Your task to perform on an android device: change your default location settings in chrome Image 0: 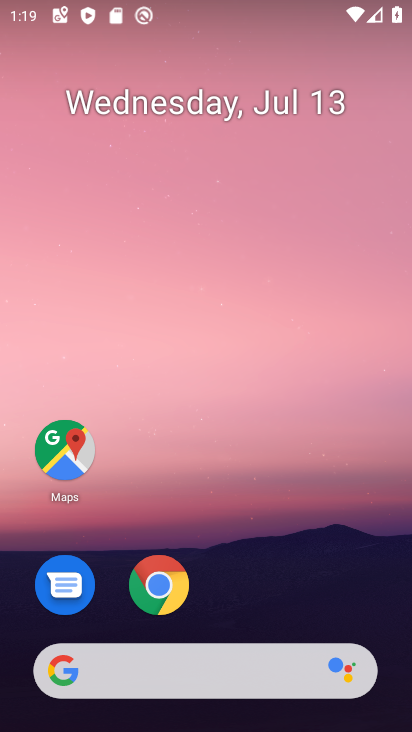
Step 0: click (153, 590)
Your task to perform on an android device: change your default location settings in chrome Image 1: 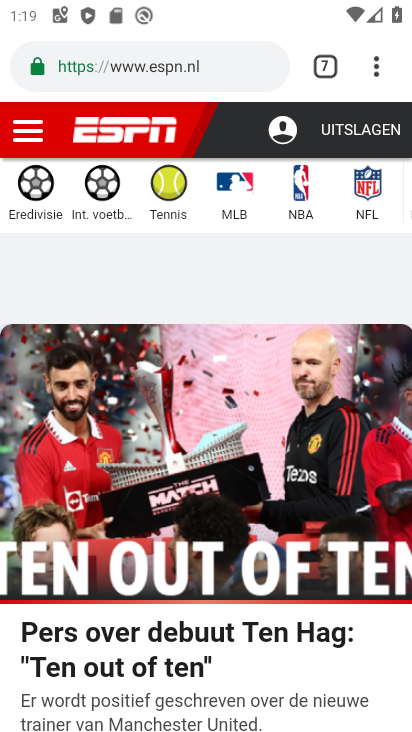
Step 1: drag from (372, 63) to (170, 592)
Your task to perform on an android device: change your default location settings in chrome Image 2: 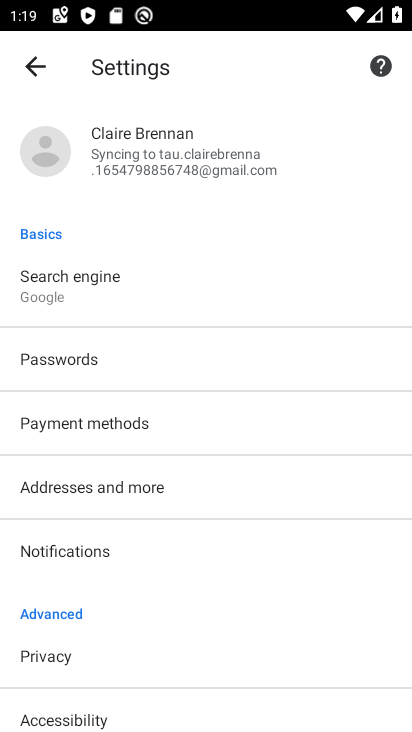
Step 2: drag from (153, 640) to (293, 273)
Your task to perform on an android device: change your default location settings in chrome Image 3: 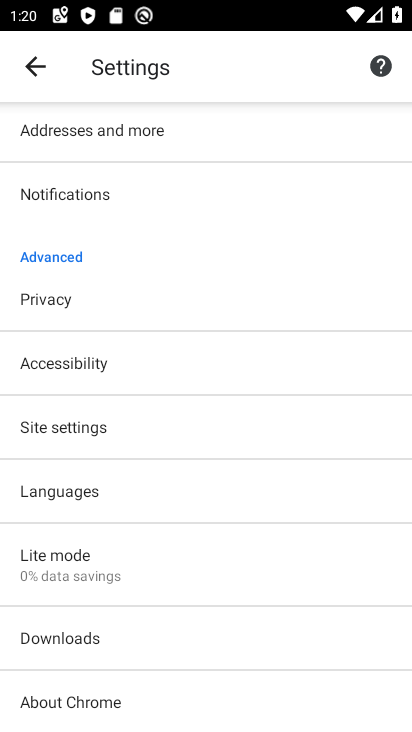
Step 3: click (79, 437)
Your task to perform on an android device: change your default location settings in chrome Image 4: 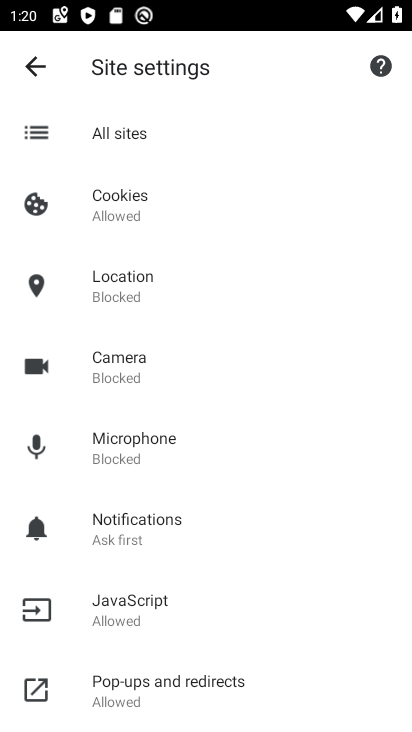
Step 4: click (149, 287)
Your task to perform on an android device: change your default location settings in chrome Image 5: 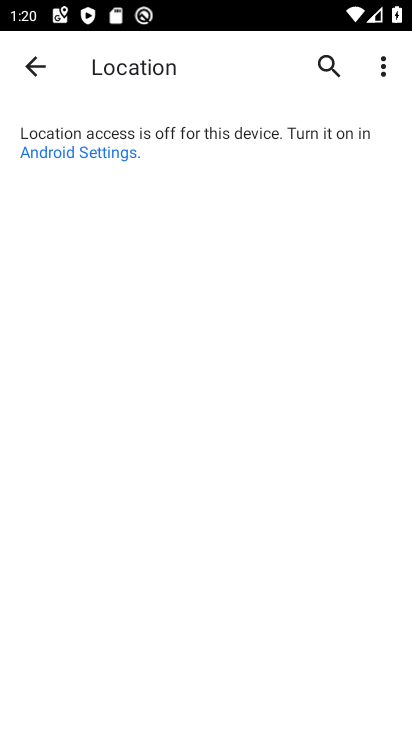
Step 5: task complete